Your task to perform on an android device: Go to Wikipedia Image 0: 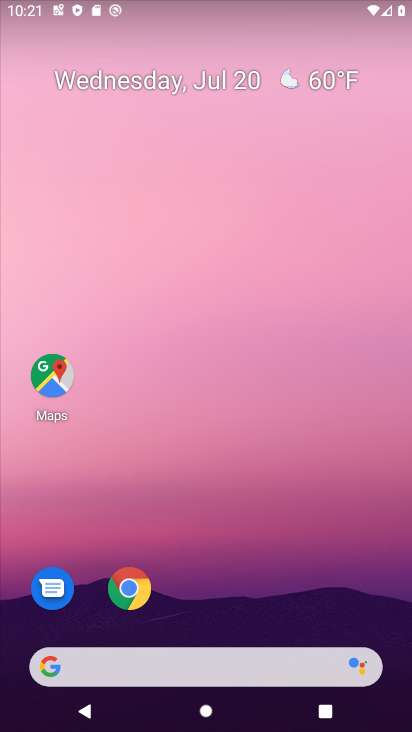
Step 0: click (139, 594)
Your task to perform on an android device: Go to Wikipedia Image 1: 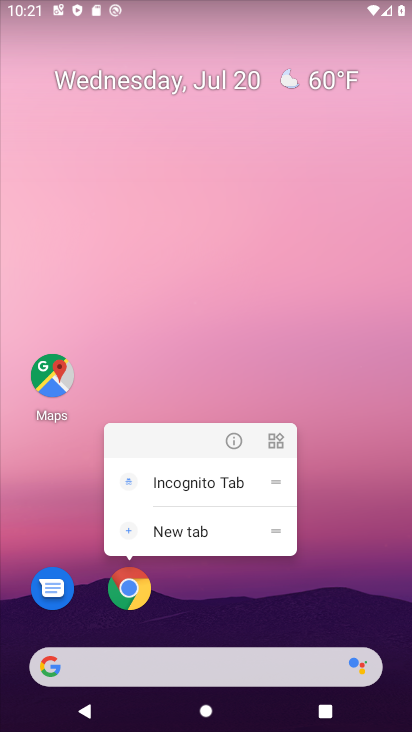
Step 1: click (138, 593)
Your task to perform on an android device: Go to Wikipedia Image 2: 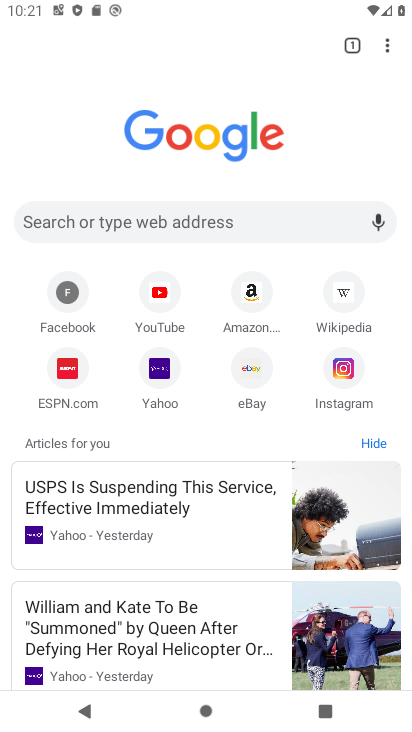
Step 2: click (357, 307)
Your task to perform on an android device: Go to Wikipedia Image 3: 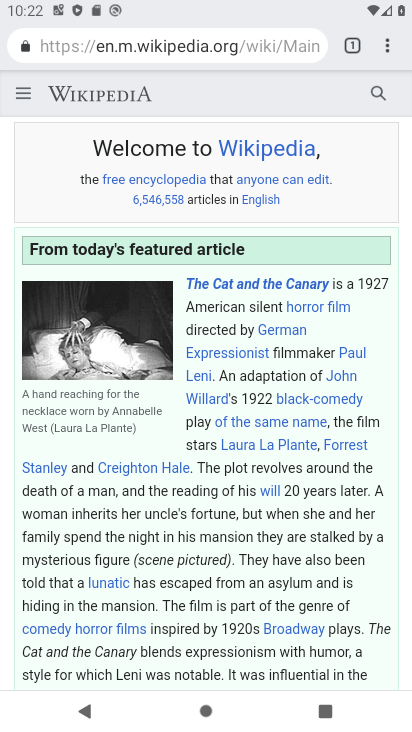
Step 3: press home button
Your task to perform on an android device: Go to Wikipedia Image 4: 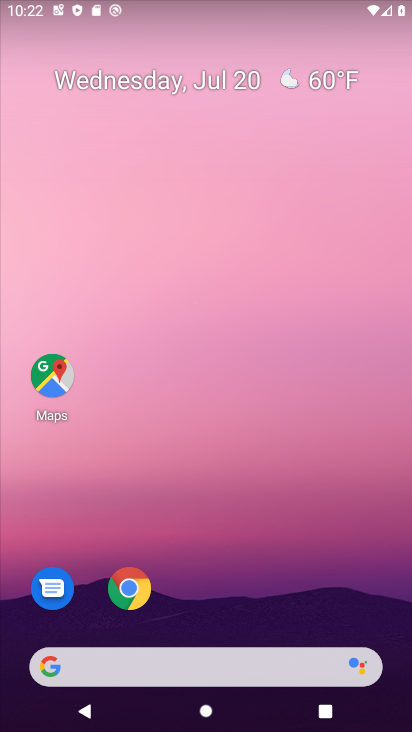
Step 4: click (134, 585)
Your task to perform on an android device: Go to Wikipedia Image 5: 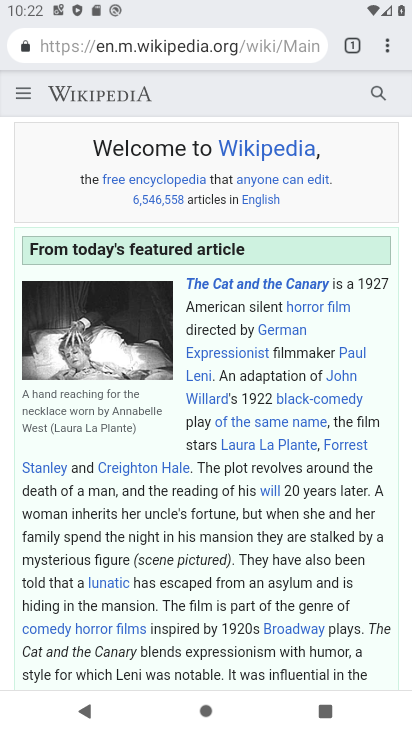
Step 5: click (268, 146)
Your task to perform on an android device: Go to Wikipedia Image 6: 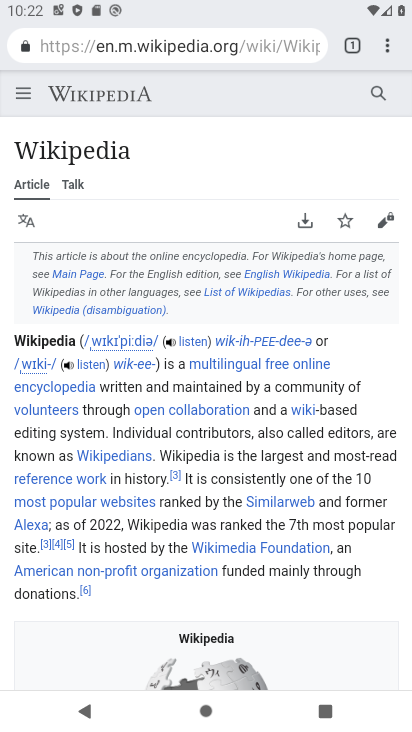
Step 6: task complete